Your task to perform on an android device: see sites visited before in the chrome app Image 0: 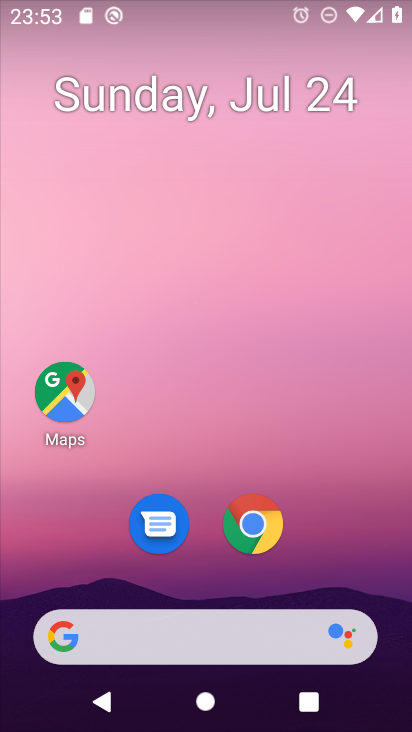
Step 0: click (248, 522)
Your task to perform on an android device: see sites visited before in the chrome app Image 1: 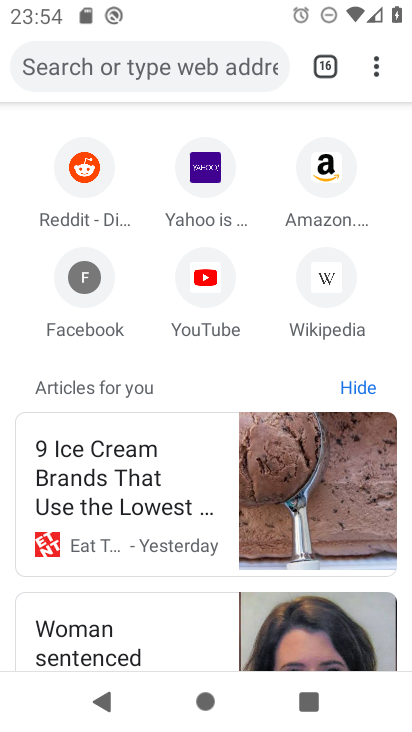
Step 1: task complete